Your task to perform on an android device: When is my next meeting? Image 0: 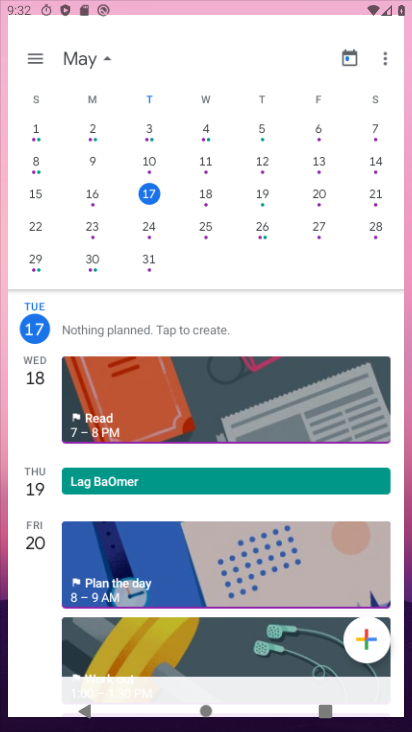
Step 0: press home button
Your task to perform on an android device: When is my next meeting? Image 1: 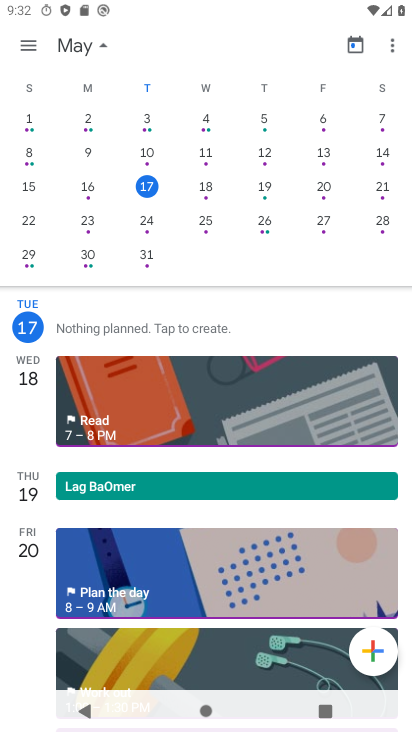
Step 1: drag from (261, 680) to (140, 59)
Your task to perform on an android device: When is my next meeting? Image 2: 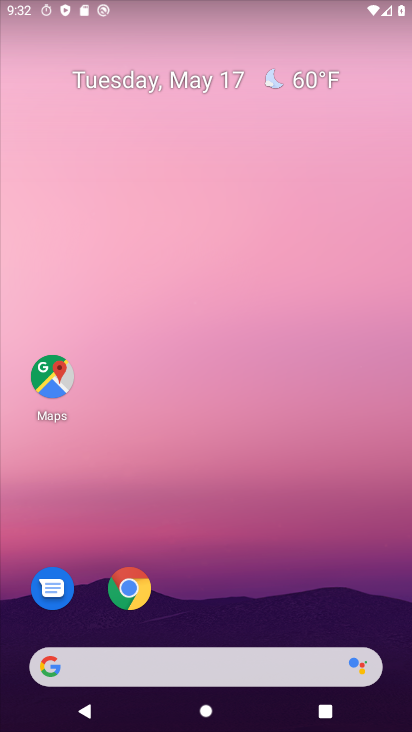
Step 2: drag from (231, 527) to (114, 126)
Your task to perform on an android device: When is my next meeting? Image 3: 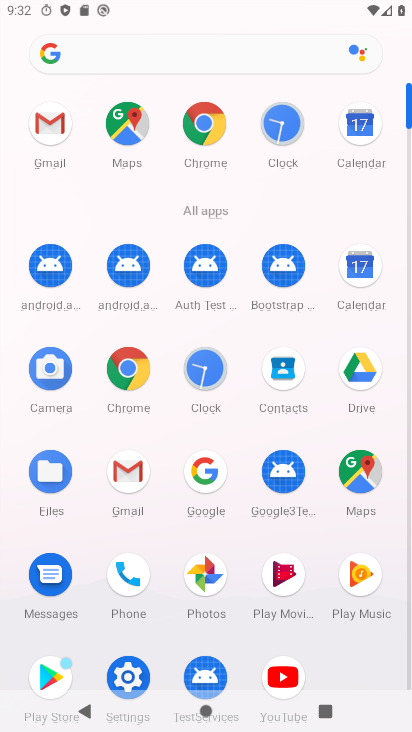
Step 3: click (363, 264)
Your task to perform on an android device: When is my next meeting? Image 4: 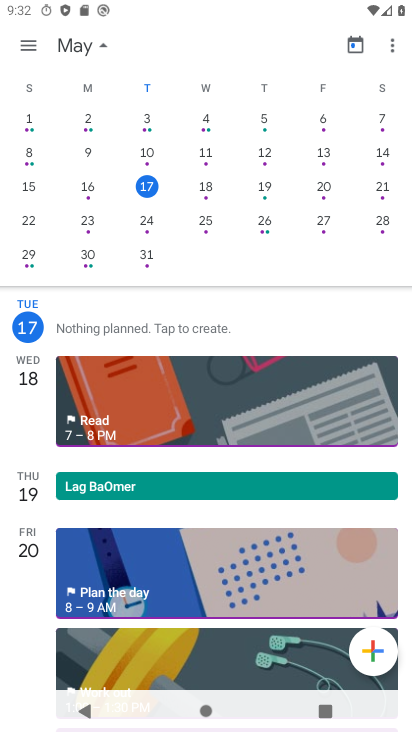
Step 4: click (361, 263)
Your task to perform on an android device: When is my next meeting? Image 5: 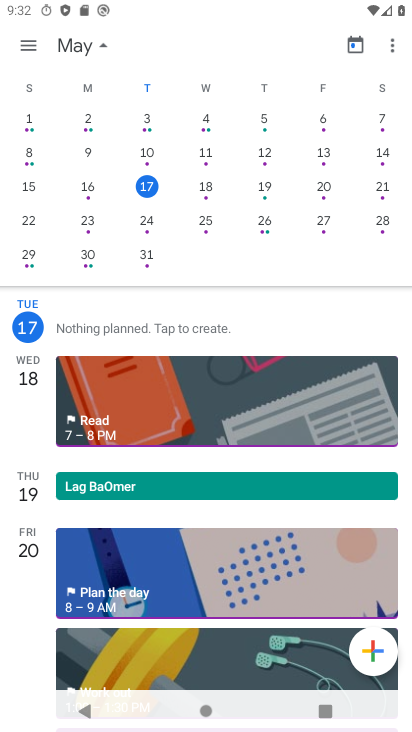
Step 5: task complete